Your task to perform on an android device: turn on location history Image 0: 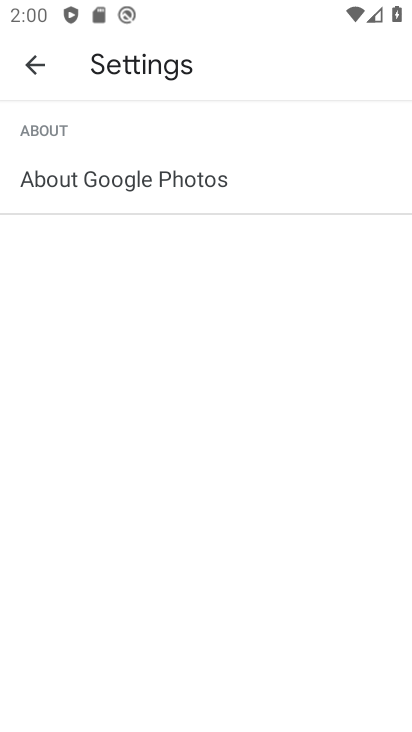
Step 0: press home button
Your task to perform on an android device: turn on location history Image 1: 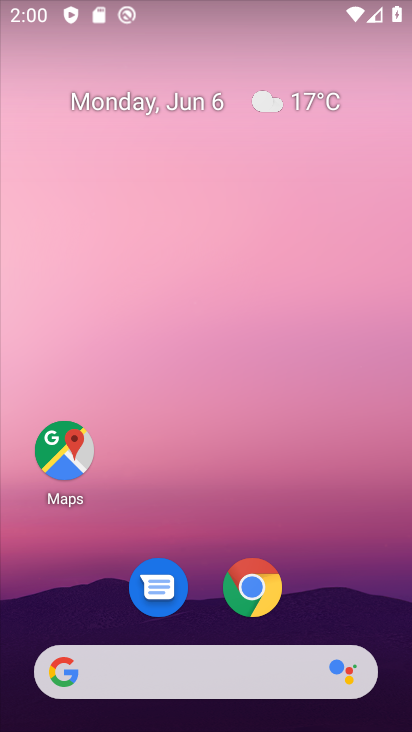
Step 1: drag from (346, 545) to (308, 113)
Your task to perform on an android device: turn on location history Image 2: 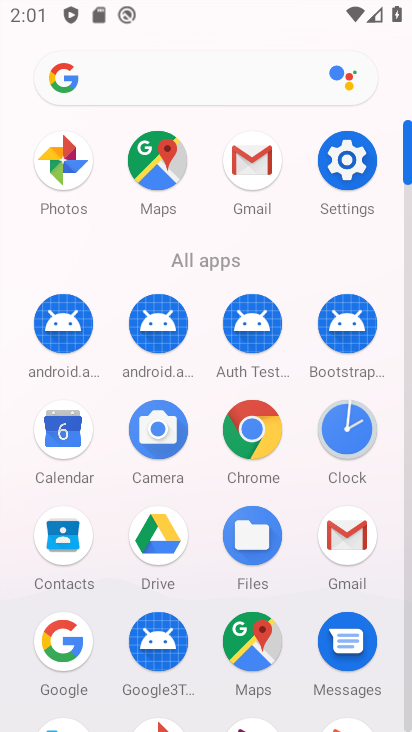
Step 2: click (353, 169)
Your task to perform on an android device: turn on location history Image 3: 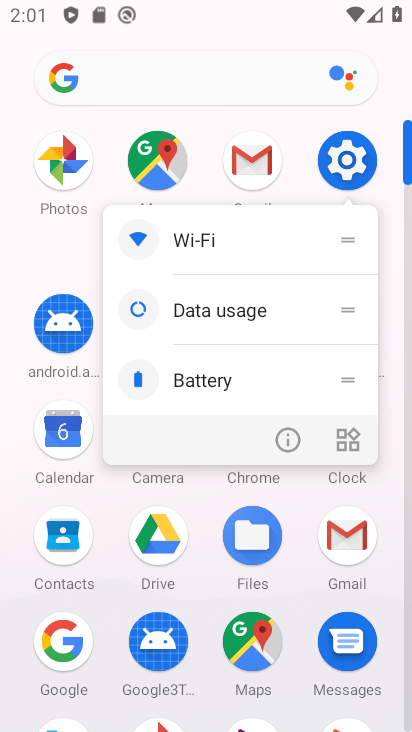
Step 3: click (341, 166)
Your task to perform on an android device: turn on location history Image 4: 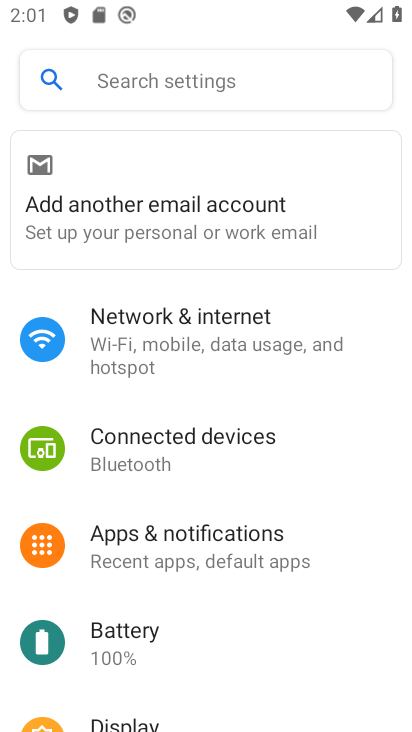
Step 4: drag from (233, 575) to (228, 269)
Your task to perform on an android device: turn on location history Image 5: 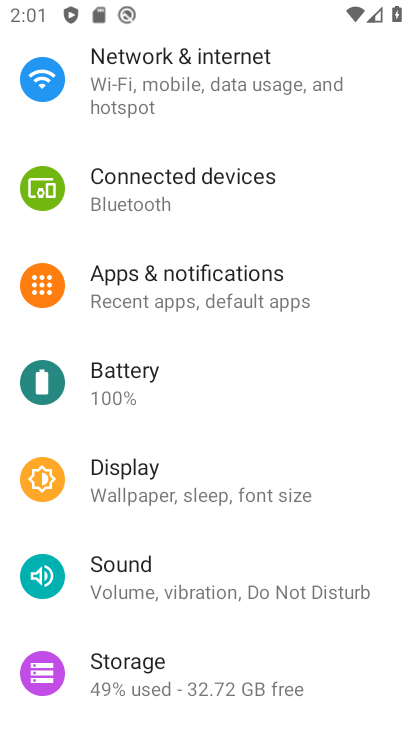
Step 5: drag from (347, 625) to (256, 203)
Your task to perform on an android device: turn on location history Image 6: 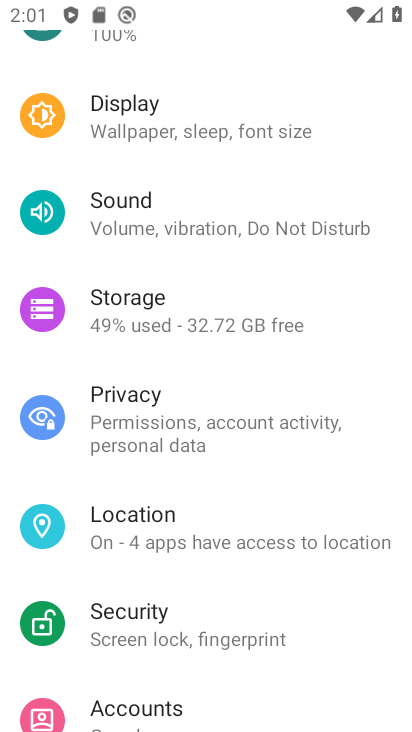
Step 6: click (264, 543)
Your task to perform on an android device: turn on location history Image 7: 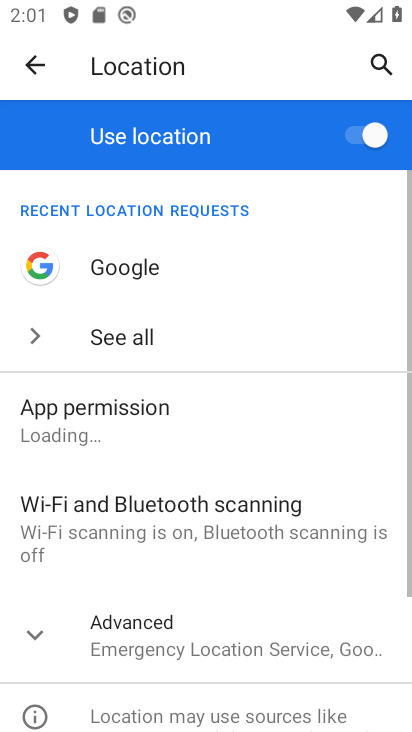
Step 7: drag from (289, 609) to (277, 335)
Your task to perform on an android device: turn on location history Image 8: 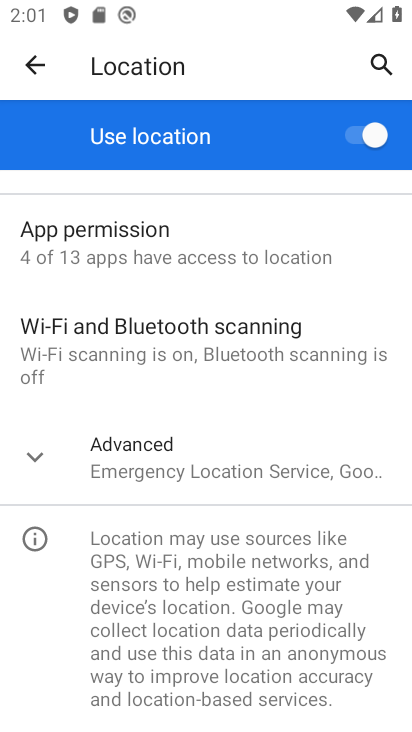
Step 8: click (230, 473)
Your task to perform on an android device: turn on location history Image 9: 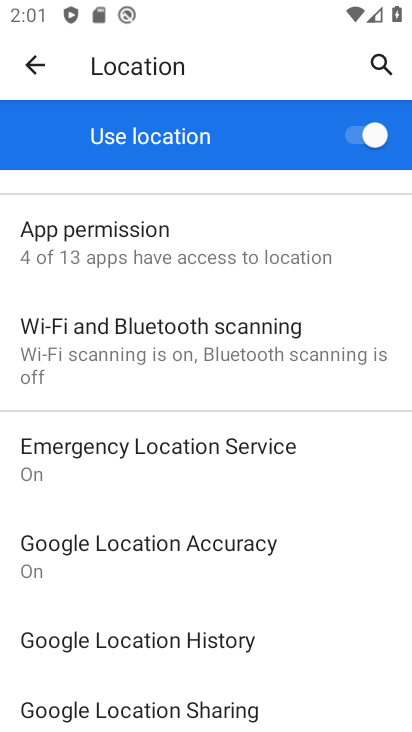
Step 9: click (202, 649)
Your task to perform on an android device: turn on location history Image 10: 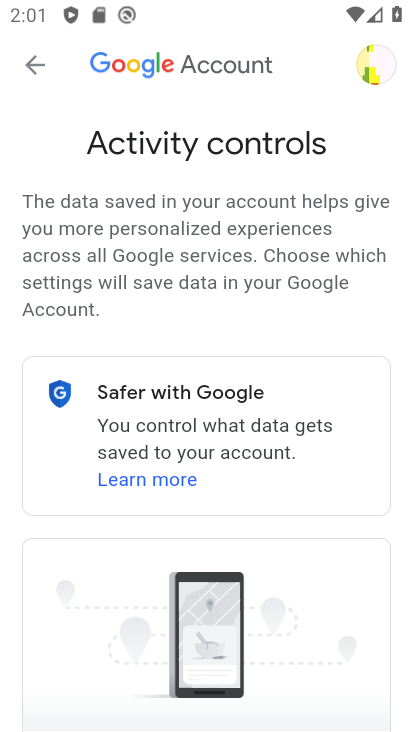
Step 10: drag from (251, 635) to (240, 289)
Your task to perform on an android device: turn on location history Image 11: 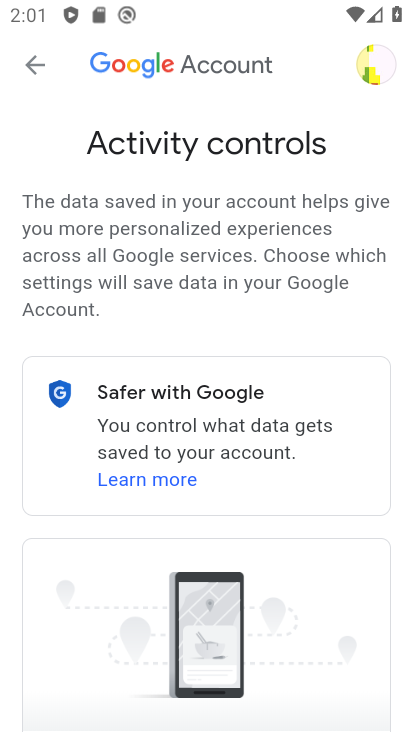
Step 11: drag from (309, 566) to (316, 205)
Your task to perform on an android device: turn on location history Image 12: 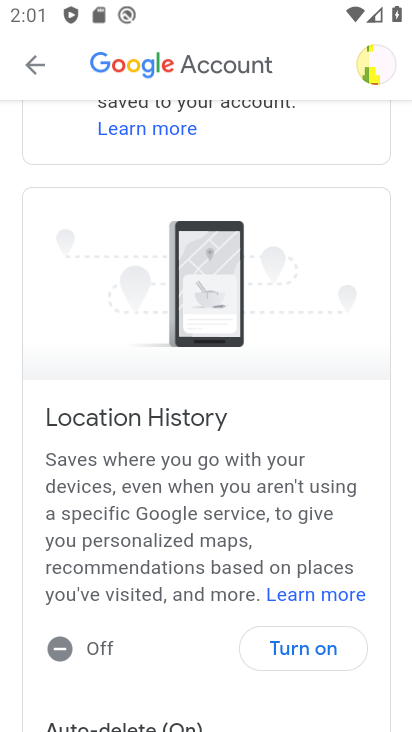
Step 12: click (327, 646)
Your task to perform on an android device: turn on location history Image 13: 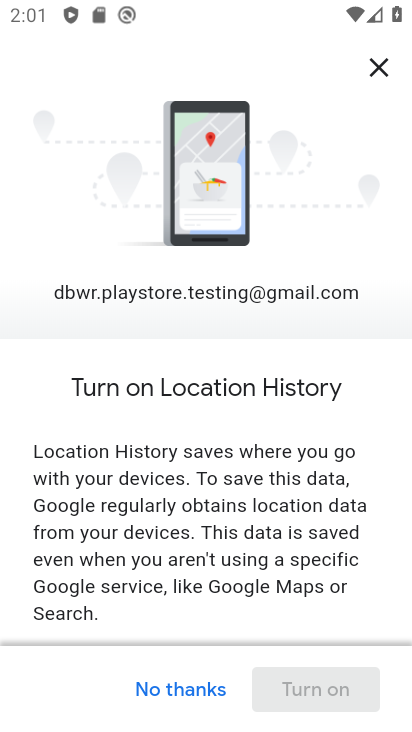
Step 13: drag from (325, 603) to (313, 223)
Your task to perform on an android device: turn on location history Image 14: 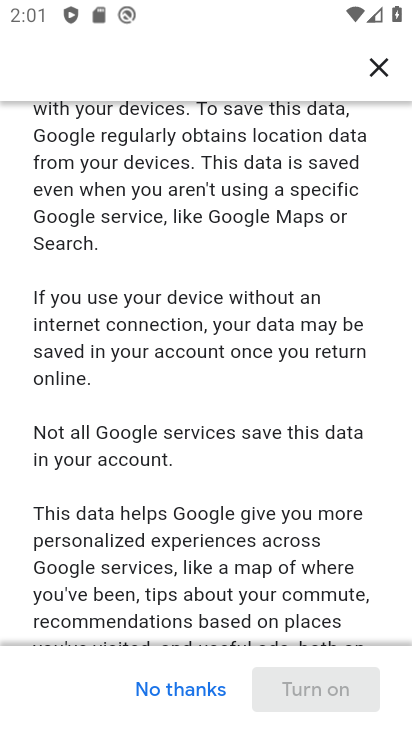
Step 14: drag from (325, 515) to (273, 195)
Your task to perform on an android device: turn on location history Image 15: 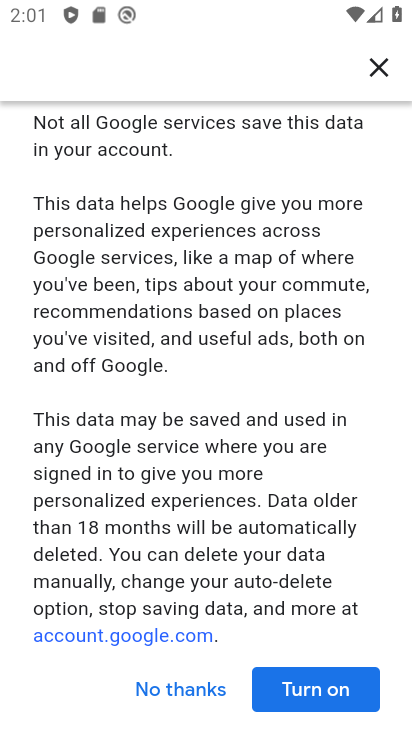
Step 15: drag from (310, 539) to (270, 265)
Your task to perform on an android device: turn on location history Image 16: 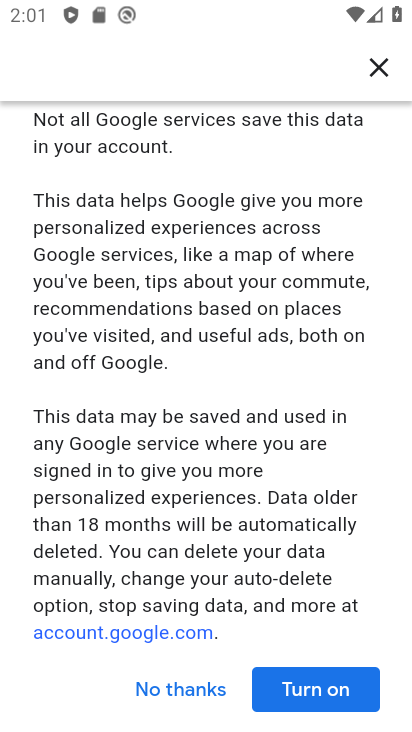
Step 16: click (351, 692)
Your task to perform on an android device: turn on location history Image 17: 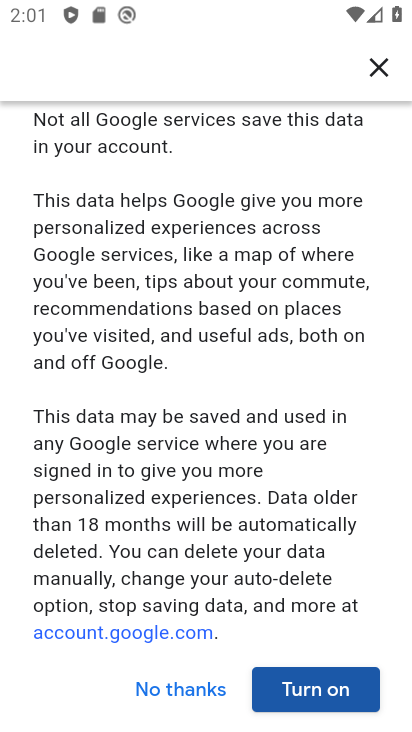
Step 17: click (351, 679)
Your task to perform on an android device: turn on location history Image 18: 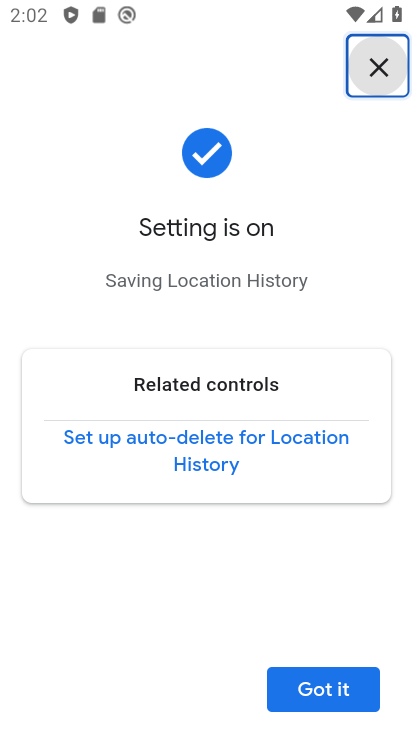
Step 18: click (314, 691)
Your task to perform on an android device: turn on location history Image 19: 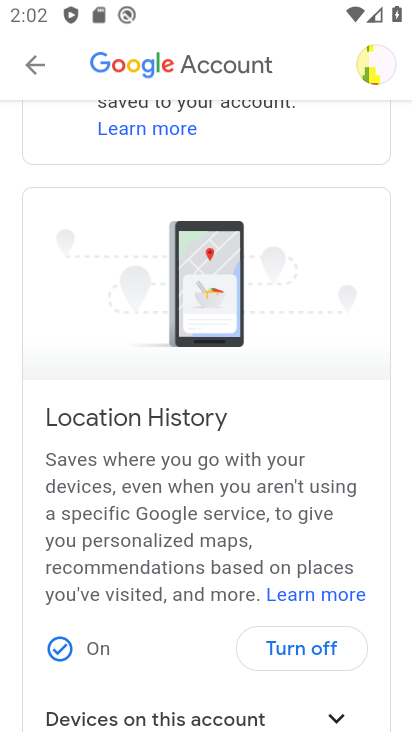
Step 19: task complete